Your task to perform on an android device: Go to Reddit.com Image 0: 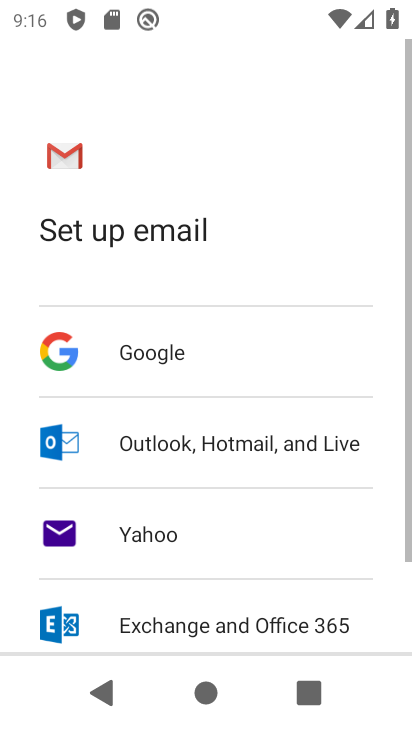
Step 0: press home button
Your task to perform on an android device: Go to Reddit.com Image 1: 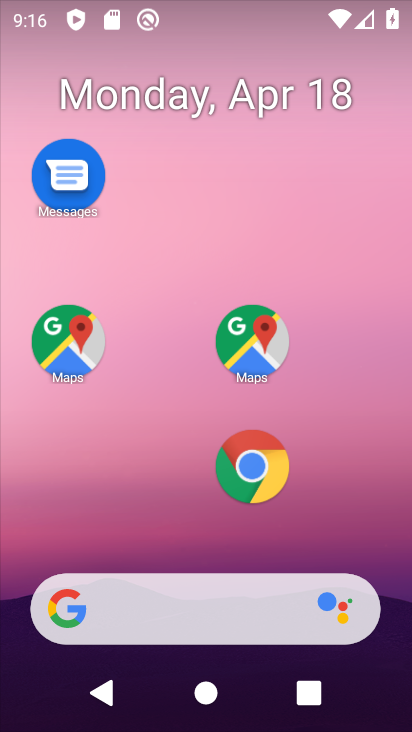
Step 1: click (267, 461)
Your task to perform on an android device: Go to Reddit.com Image 2: 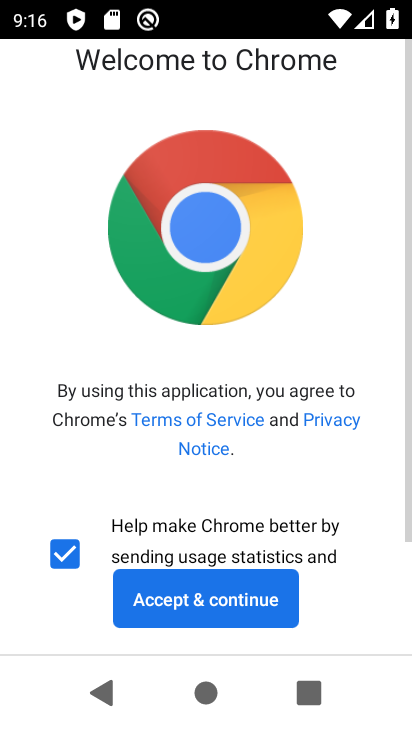
Step 2: click (219, 584)
Your task to perform on an android device: Go to Reddit.com Image 3: 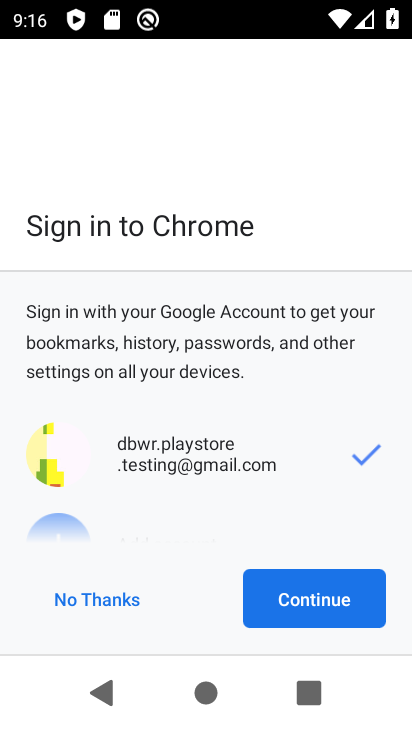
Step 3: click (336, 603)
Your task to perform on an android device: Go to Reddit.com Image 4: 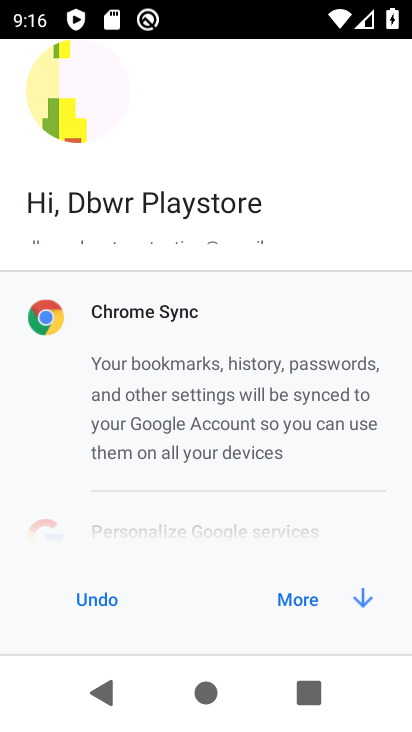
Step 4: click (336, 604)
Your task to perform on an android device: Go to Reddit.com Image 5: 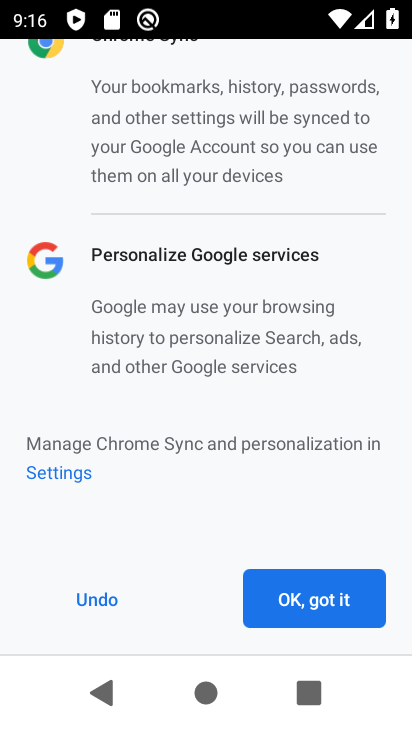
Step 5: click (336, 604)
Your task to perform on an android device: Go to Reddit.com Image 6: 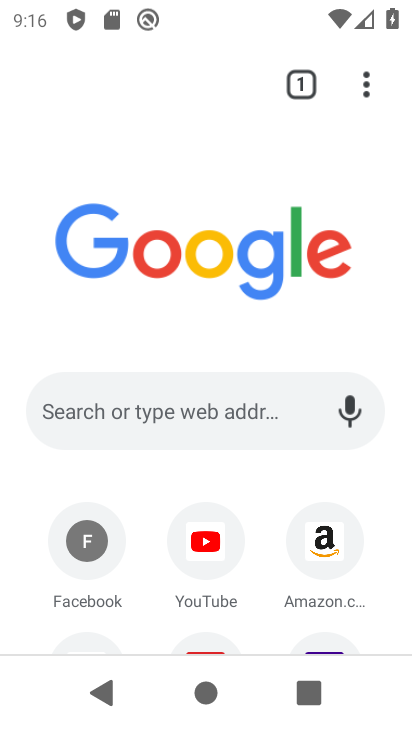
Step 6: click (202, 419)
Your task to perform on an android device: Go to Reddit.com Image 7: 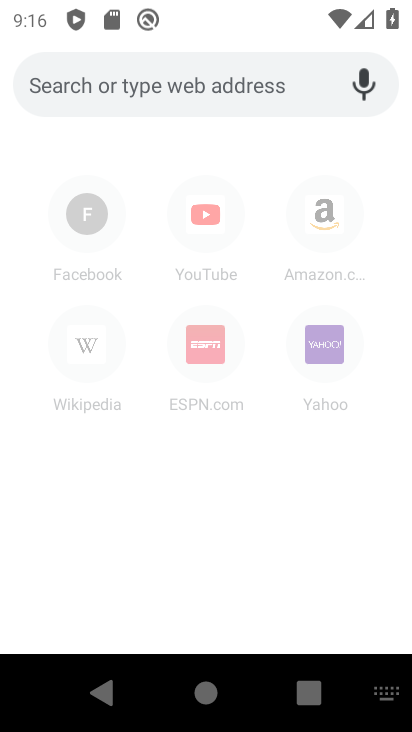
Step 7: type "reddit.com"
Your task to perform on an android device: Go to Reddit.com Image 8: 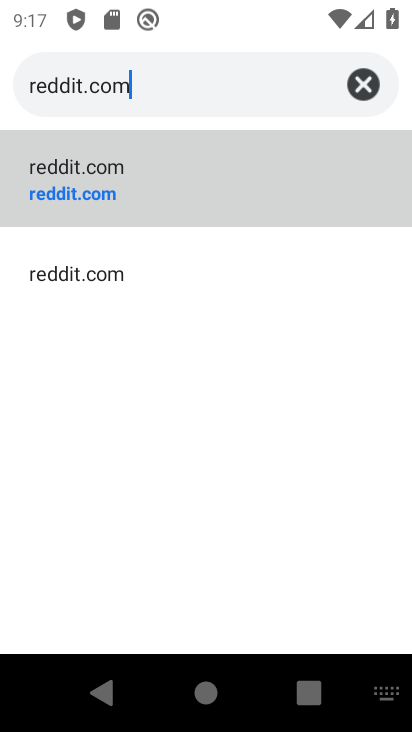
Step 8: click (84, 185)
Your task to perform on an android device: Go to Reddit.com Image 9: 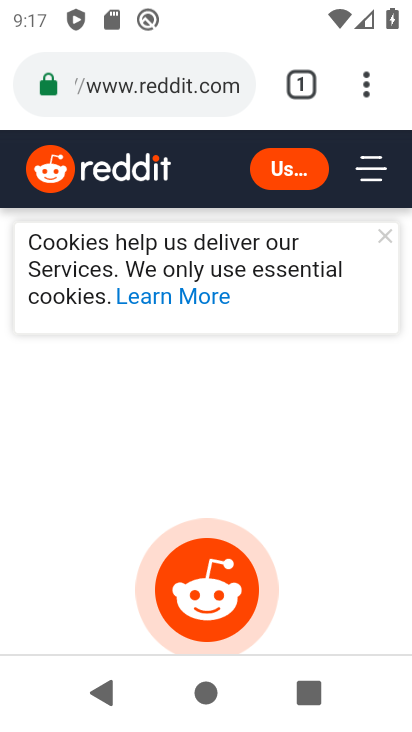
Step 9: task complete